Your task to perform on an android device: Go to Amazon Image 0: 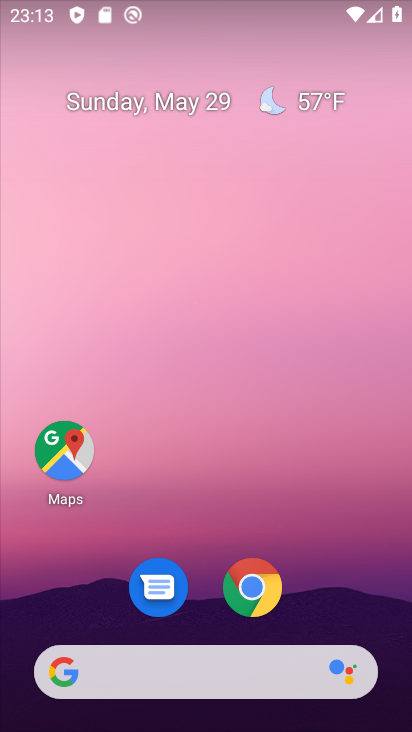
Step 0: click (264, 588)
Your task to perform on an android device: Go to Amazon Image 1: 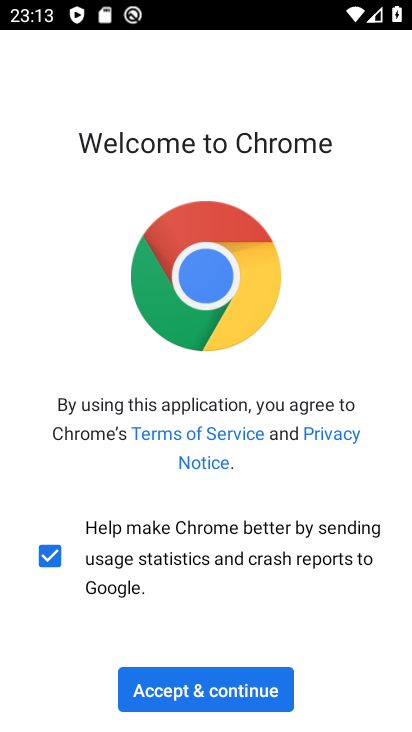
Step 1: click (239, 694)
Your task to perform on an android device: Go to Amazon Image 2: 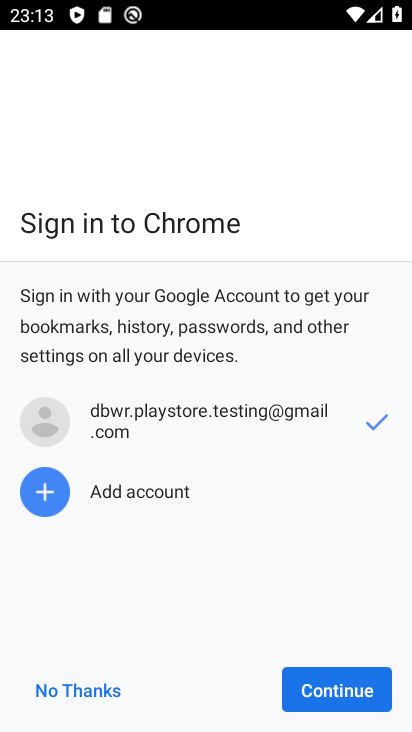
Step 2: click (329, 690)
Your task to perform on an android device: Go to Amazon Image 3: 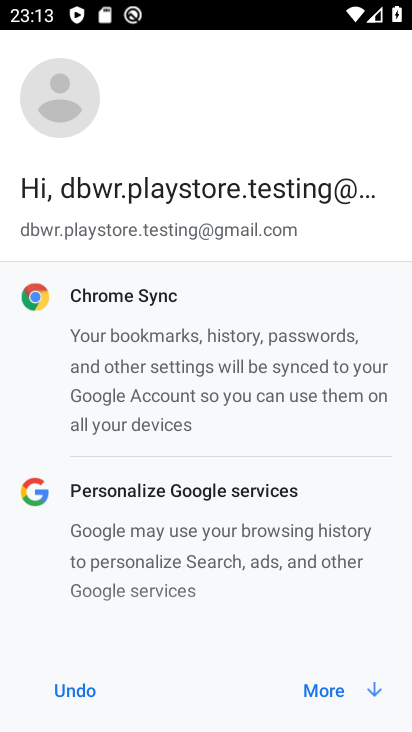
Step 3: click (329, 690)
Your task to perform on an android device: Go to Amazon Image 4: 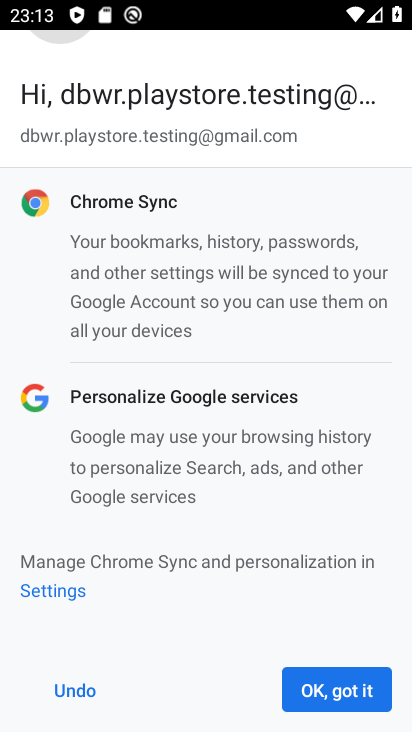
Step 4: click (329, 690)
Your task to perform on an android device: Go to Amazon Image 5: 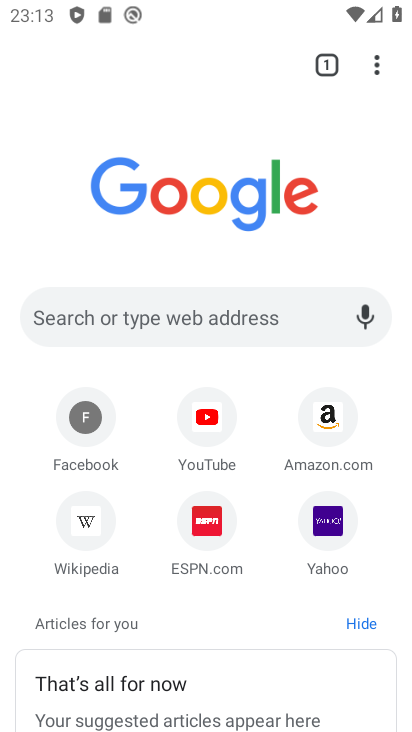
Step 5: click (320, 432)
Your task to perform on an android device: Go to Amazon Image 6: 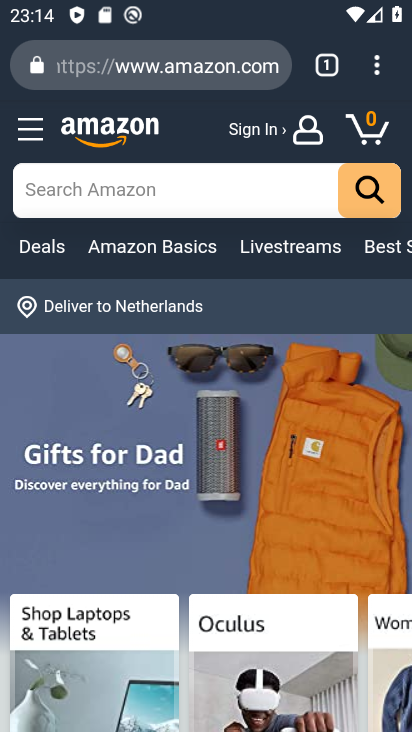
Step 6: task complete